Your task to perform on an android device: Add razer deathadder to the cart on walmart.com Image 0: 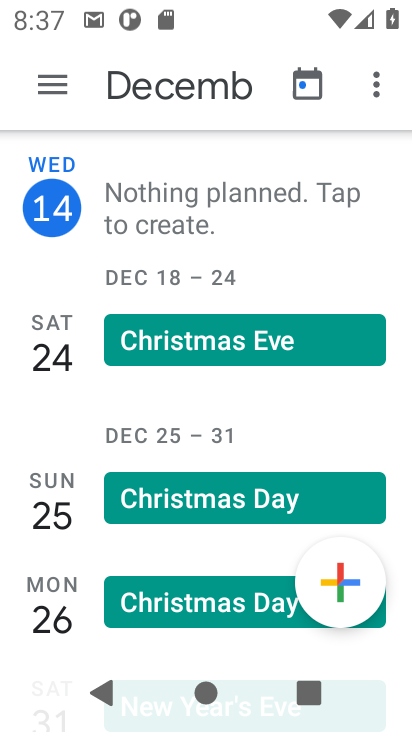
Step 0: press home button
Your task to perform on an android device: Add razer deathadder to the cart on walmart.com Image 1: 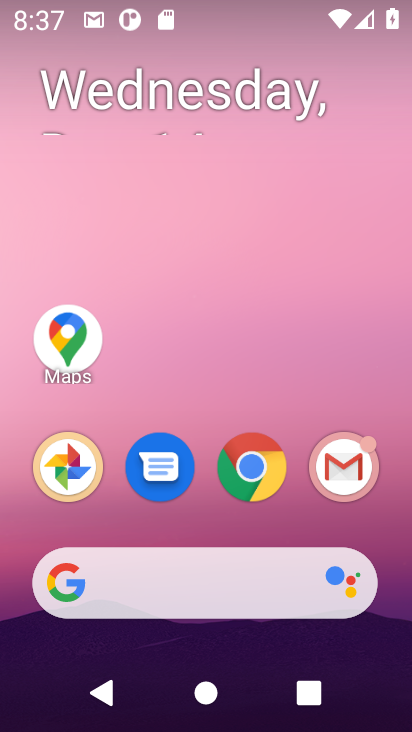
Step 1: click (260, 477)
Your task to perform on an android device: Add razer deathadder to the cart on walmart.com Image 2: 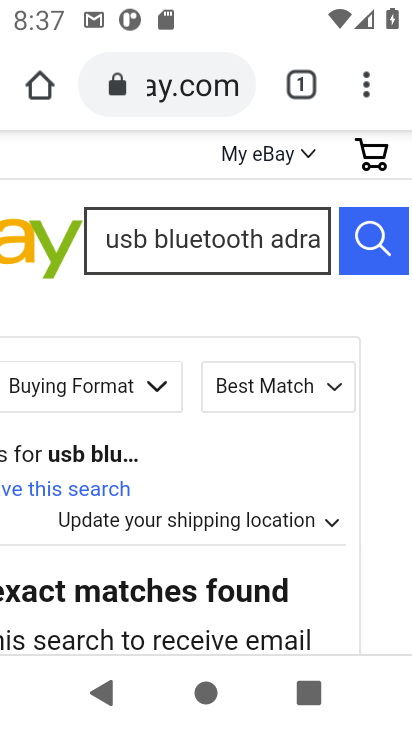
Step 2: click (183, 108)
Your task to perform on an android device: Add razer deathadder to the cart on walmart.com Image 3: 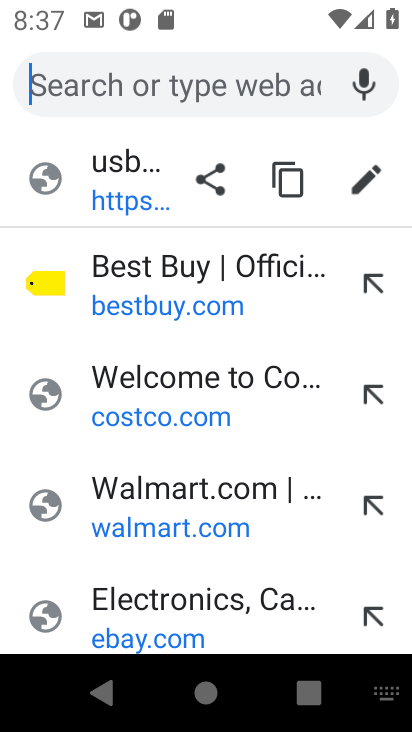
Step 3: type "walmart"
Your task to perform on an android device: Add razer deathadder to the cart on walmart.com Image 4: 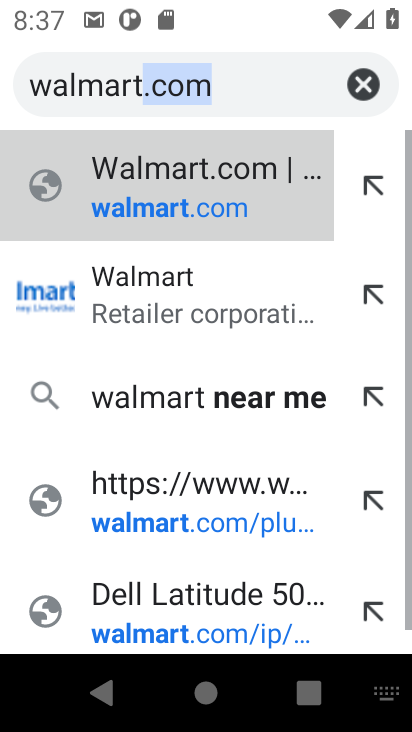
Step 4: click (178, 182)
Your task to perform on an android device: Add razer deathadder to the cart on walmart.com Image 5: 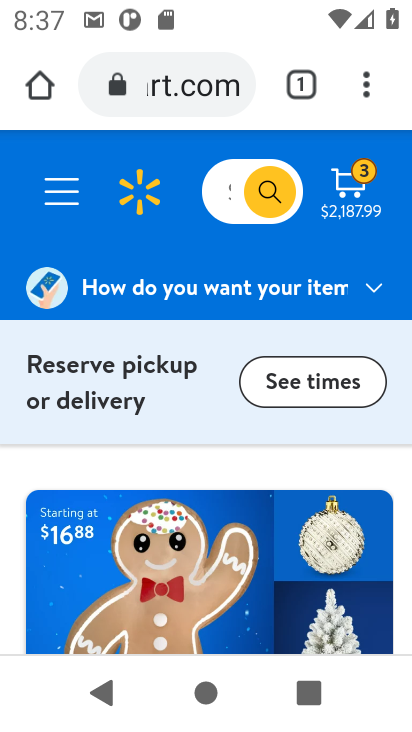
Step 5: click (367, 195)
Your task to perform on an android device: Add razer deathadder to the cart on walmart.com Image 6: 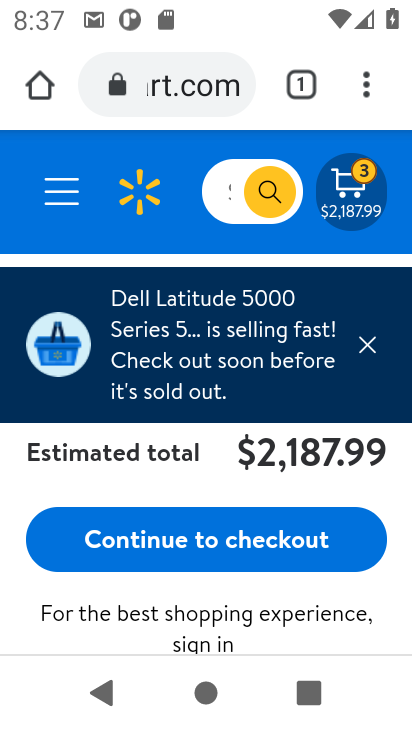
Step 6: click (227, 190)
Your task to perform on an android device: Add razer deathadder to the cart on walmart.com Image 7: 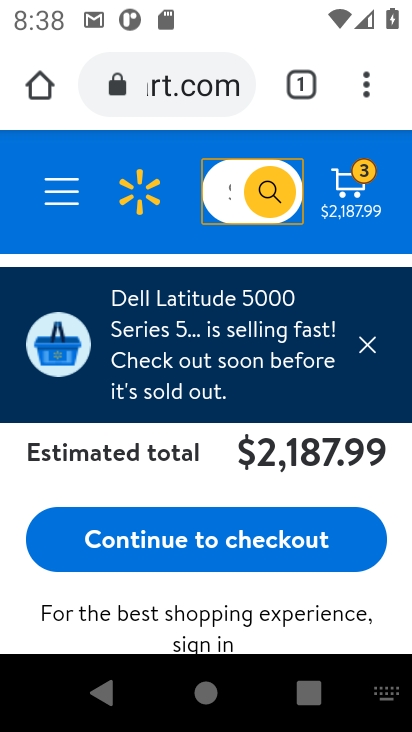
Step 7: click (246, 196)
Your task to perform on an android device: Add razer deathadder to the cart on walmart.com Image 8: 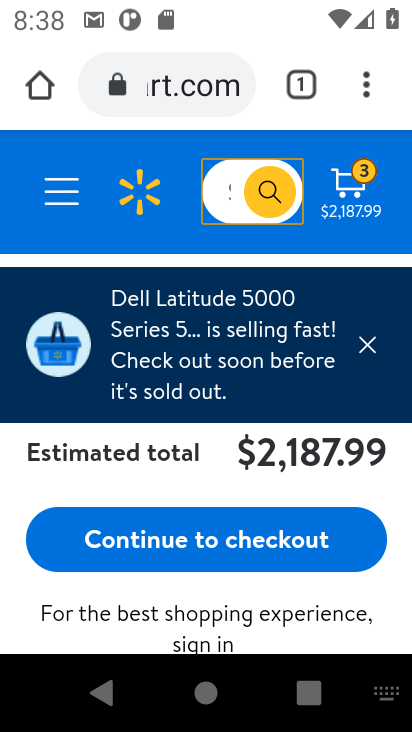
Step 8: click (246, 196)
Your task to perform on an android device: Add razer deathadder to the cart on walmart.com Image 9: 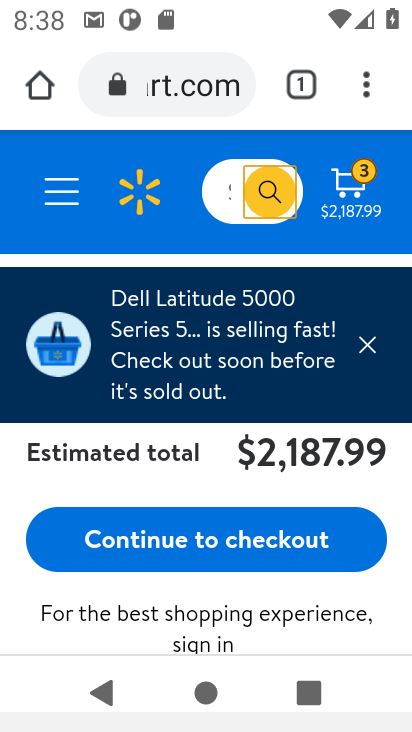
Step 9: click (246, 196)
Your task to perform on an android device: Add razer deathadder to the cart on walmart.com Image 10: 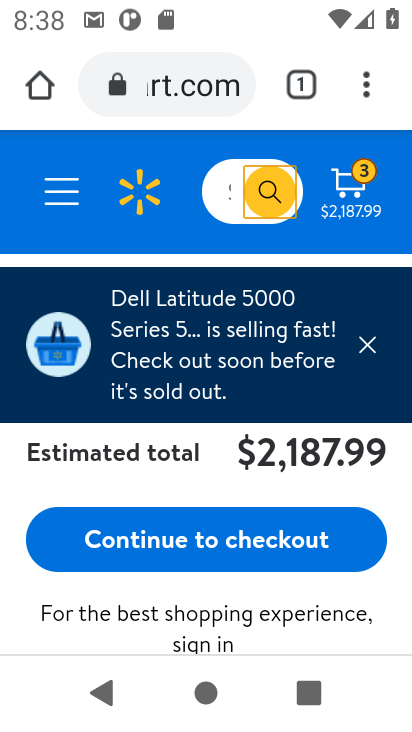
Step 10: click (236, 181)
Your task to perform on an android device: Add razer deathadder to the cart on walmart.com Image 11: 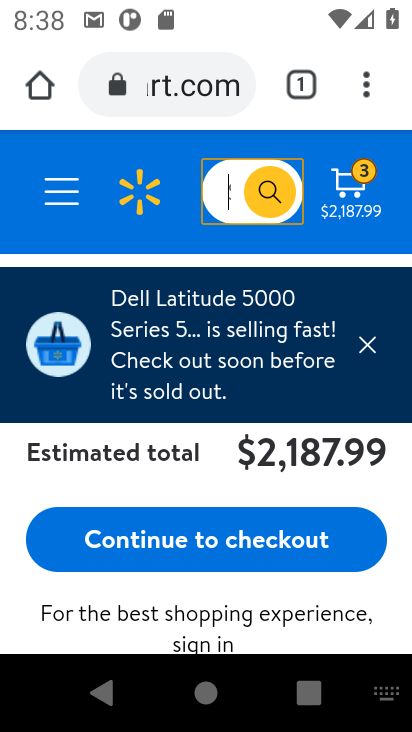
Step 11: type "razer deathadder"
Your task to perform on an android device: Add razer deathadder to the cart on walmart.com Image 12: 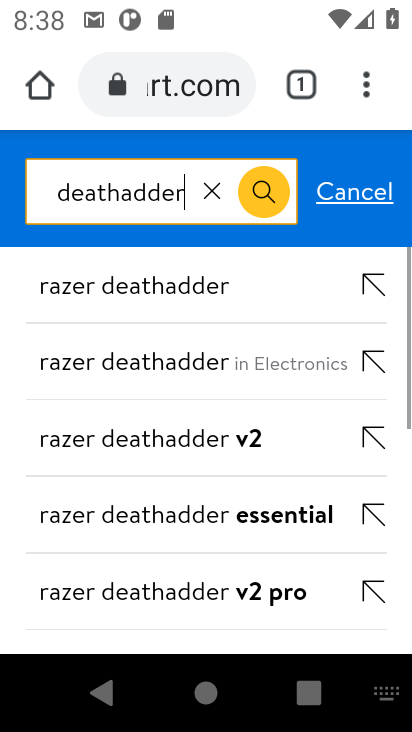
Step 12: click (203, 252)
Your task to perform on an android device: Add razer deathadder to the cart on walmart.com Image 13: 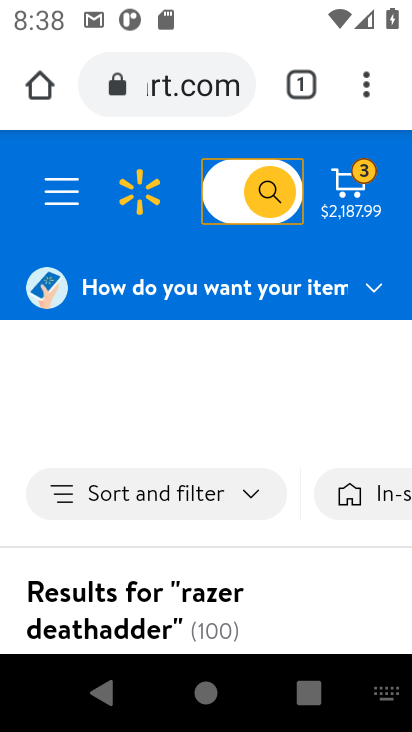
Step 13: task complete